Your task to perform on an android device: set the timer Image 0: 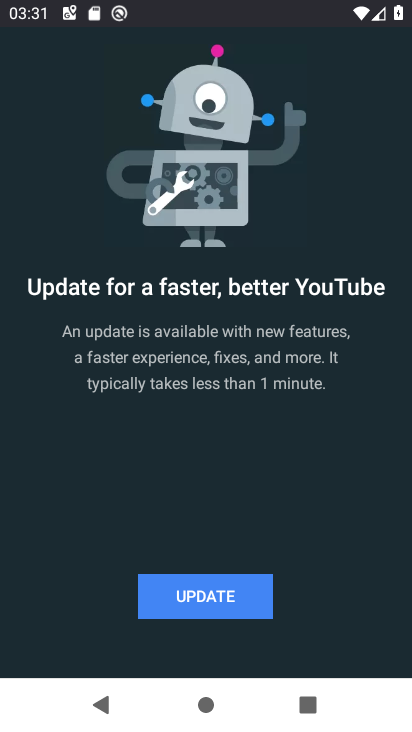
Step 0: press home button
Your task to perform on an android device: set the timer Image 1: 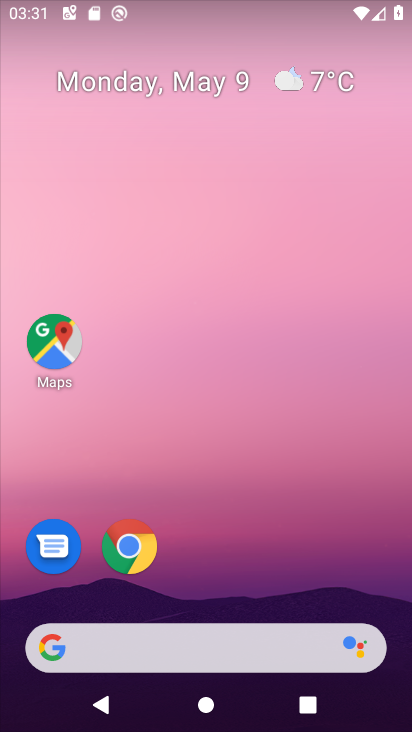
Step 1: drag from (226, 527) to (192, 8)
Your task to perform on an android device: set the timer Image 2: 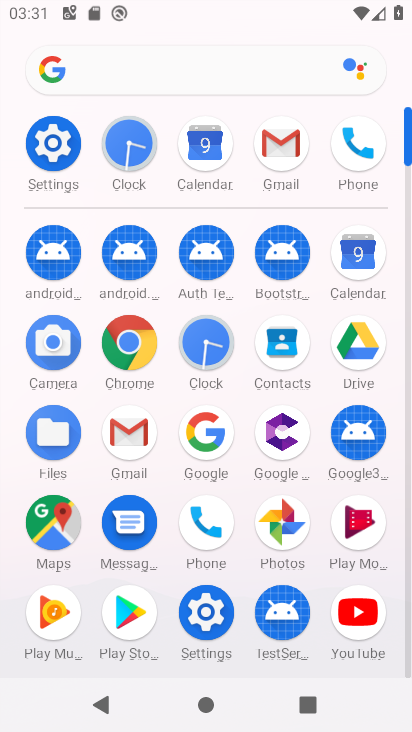
Step 2: click (127, 127)
Your task to perform on an android device: set the timer Image 3: 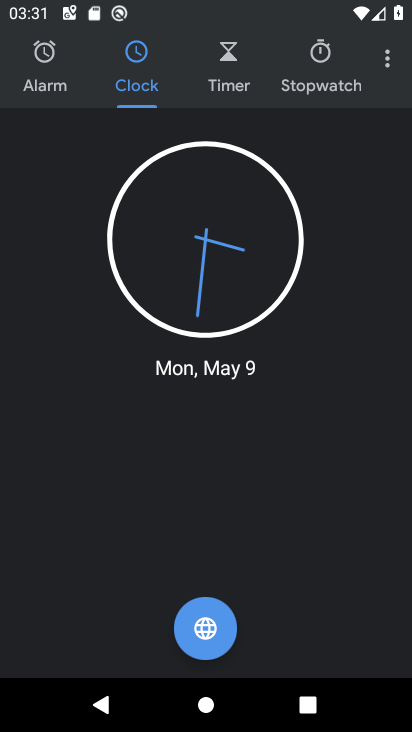
Step 3: click (219, 50)
Your task to perform on an android device: set the timer Image 4: 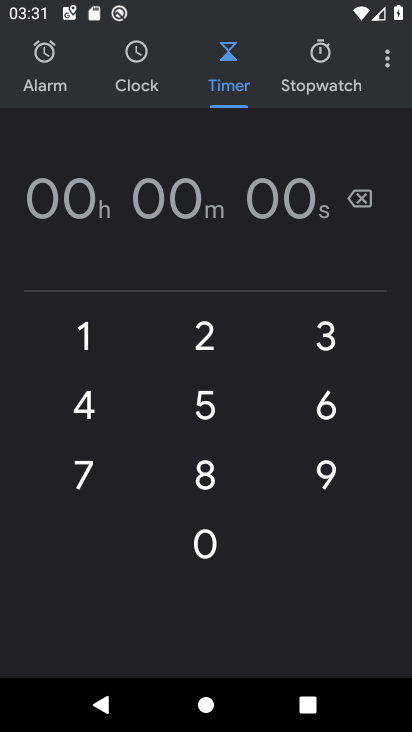
Step 4: click (85, 330)
Your task to perform on an android device: set the timer Image 5: 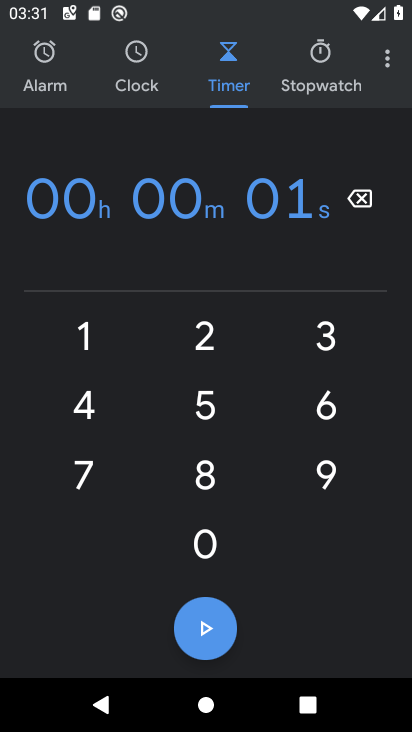
Step 5: click (82, 322)
Your task to perform on an android device: set the timer Image 6: 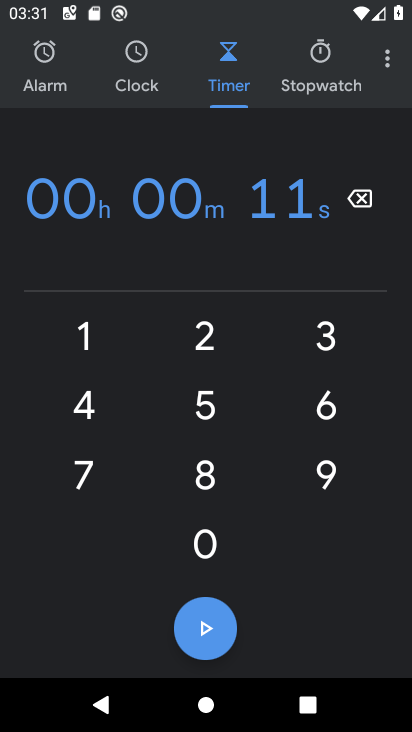
Step 6: task complete